Your task to perform on an android device: turn off notifications settings in the gmail app Image 0: 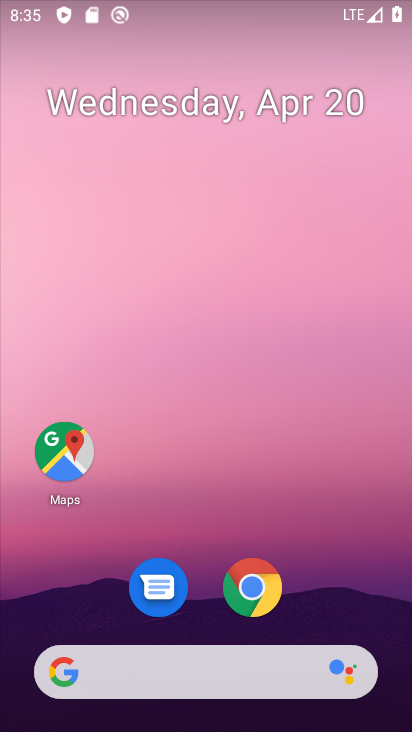
Step 0: drag from (368, 565) to (355, 216)
Your task to perform on an android device: turn off notifications settings in the gmail app Image 1: 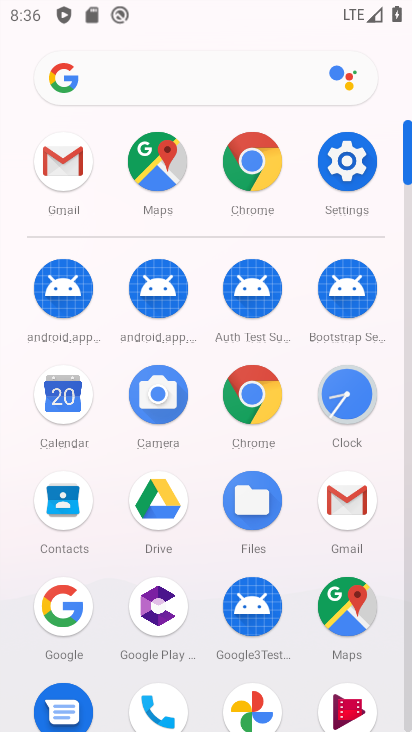
Step 1: click (353, 507)
Your task to perform on an android device: turn off notifications settings in the gmail app Image 2: 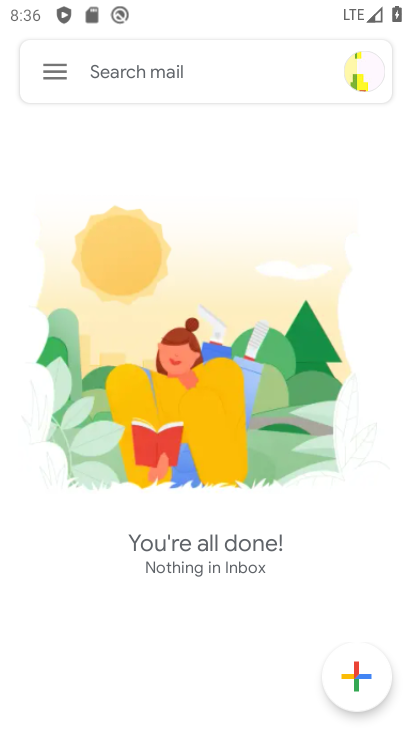
Step 2: click (60, 78)
Your task to perform on an android device: turn off notifications settings in the gmail app Image 3: 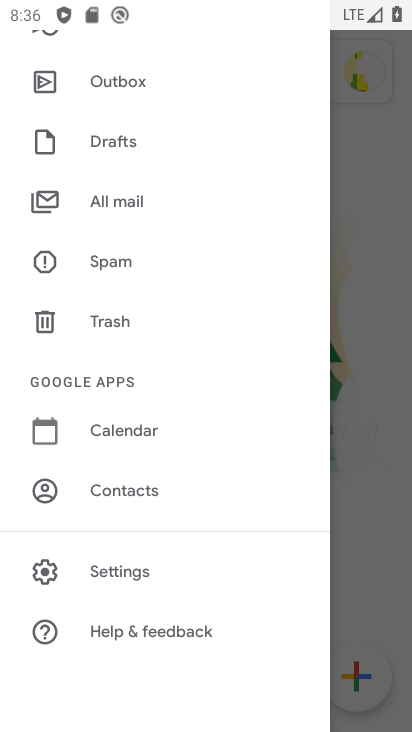
Step 3: drag from (270, 295) to (270, 393)
Your task to perform on an android device: turn off notifications settings in the gmail app Image 4: 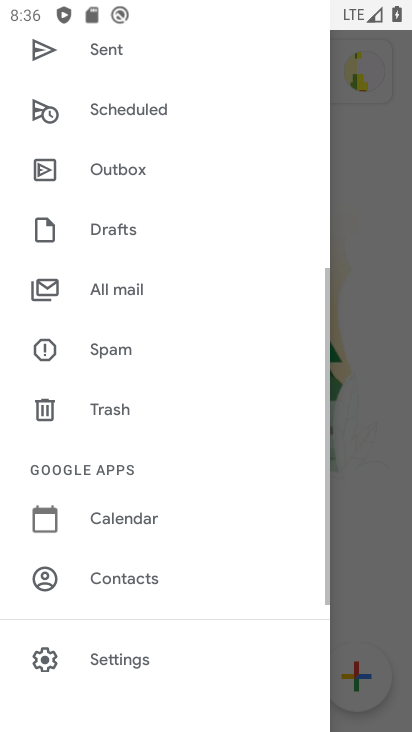
Step 4: drag from (280, 240) to (293, 378)
Your task to perform on an android device: turn off notifications settings in the gmail app Image 5: 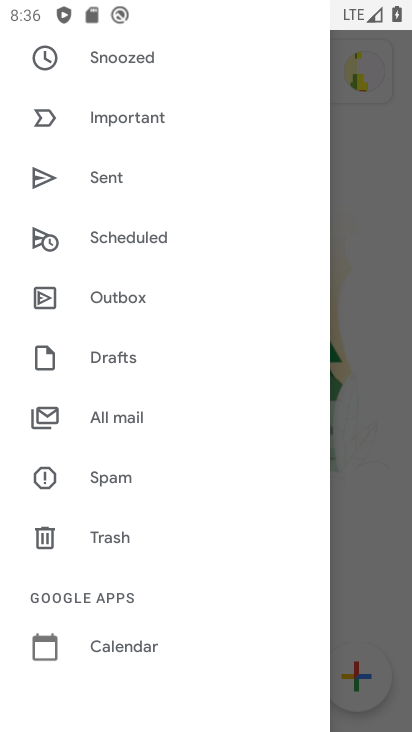
Step 5: drag from (289, 207) to (272, 355)
Your task to perform on an android device: turn off notifications settings in the gmail app Image 6: 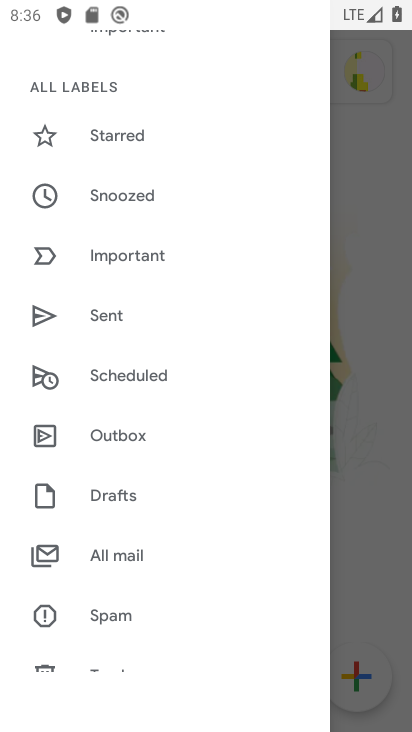
Step 6: drag from (277, 190) to (261, 348)
Your task to perform on an android device: turn off notifications settings in the gmail app Image 7: 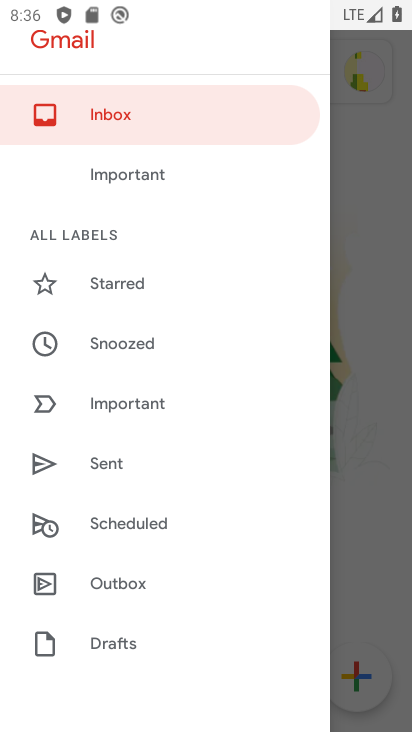
Step 7: drag from (246, 384) to (257, 282)
Your task to perform on an android device: turn off notifications settings in the gmail app Image 8: 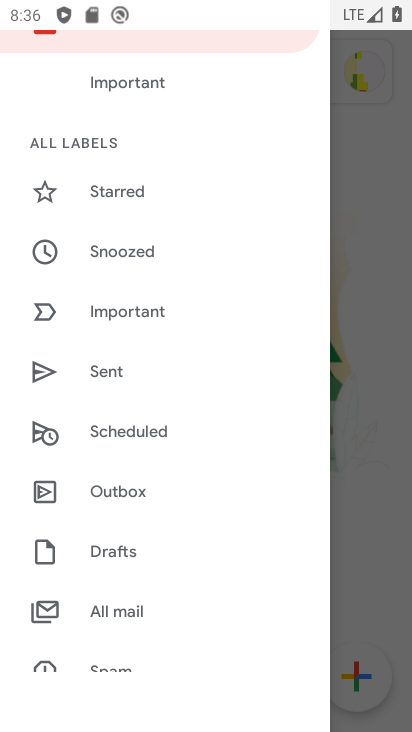
Step 8: drag from (240, 431) to (265, 273)
Your task to perform on an android device: turn off notifications settings in the gmail app Image 9: 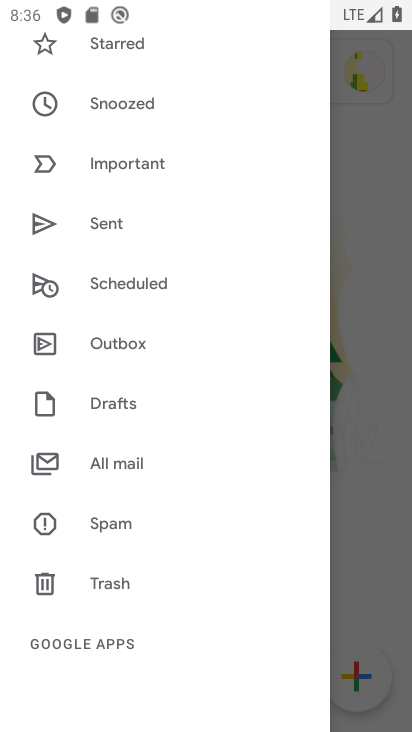
Step 9: drag from (272, 443) to (269, 292)
Your task to perform on an android device: turn off notifications settings in the gmail app Image 10: 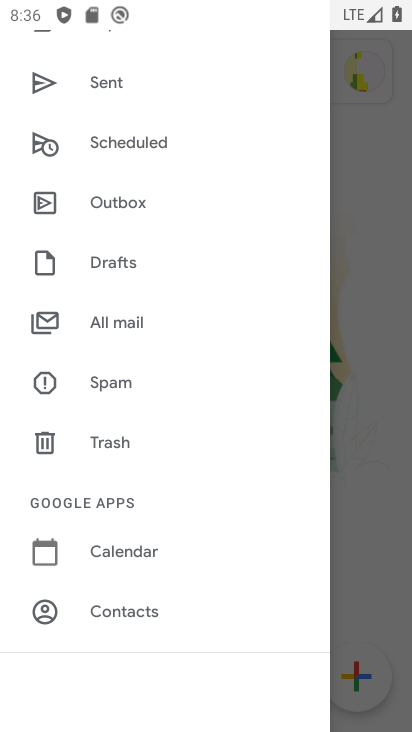
Step 10: drag from (255, 455) to (264, 317)
Your task to perform on an android device: turn off notifications settings in the gmail app Image 11: 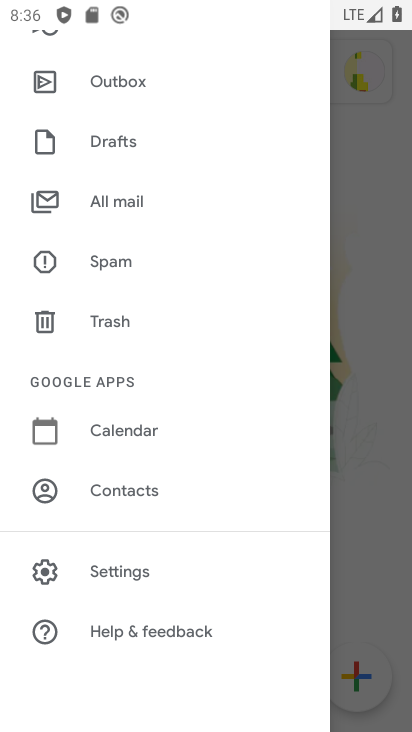
Step 11: click (179, 574)
Your task to perform on an android device: turn off notifications settings in the gmail app Image 12: 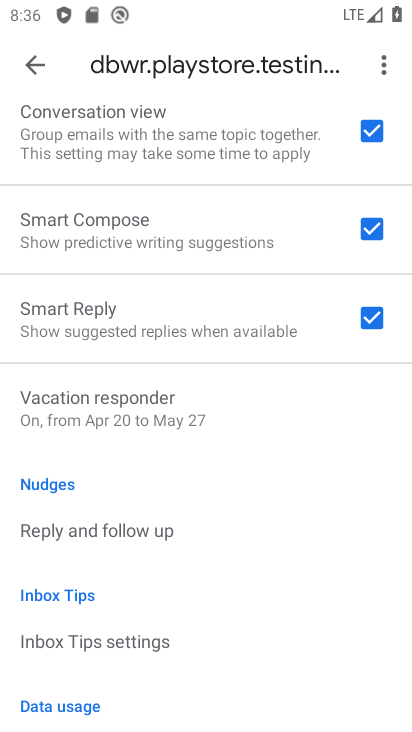
Step 12: drag from (288, 401) to (279, 463)
Your task to perform on an android device: turn off notifications settings in the gmail app Image 13: 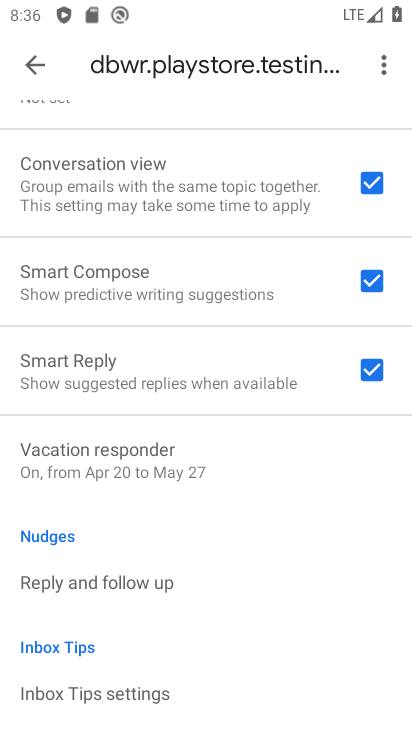
Step 13: drag from (305, 332) to (305, 433)
Your task to perform on an android device: turn off notifications settings in the gmail app Image 14: 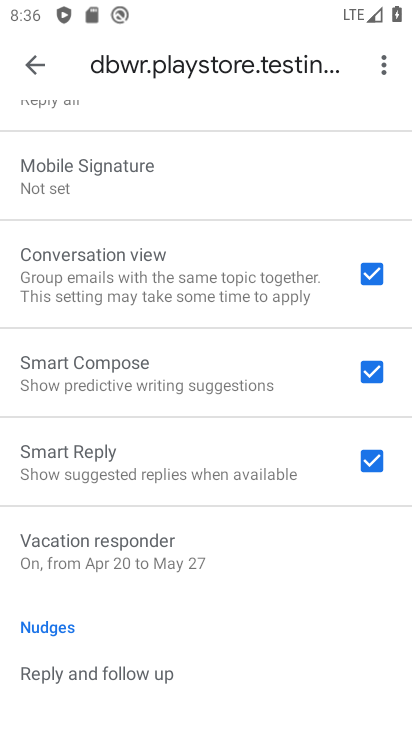
Step 14: drag from (311, 351) to (317, 459)
Your task to perform on an android device: turn off notifications settings in the gmail app Image 15: 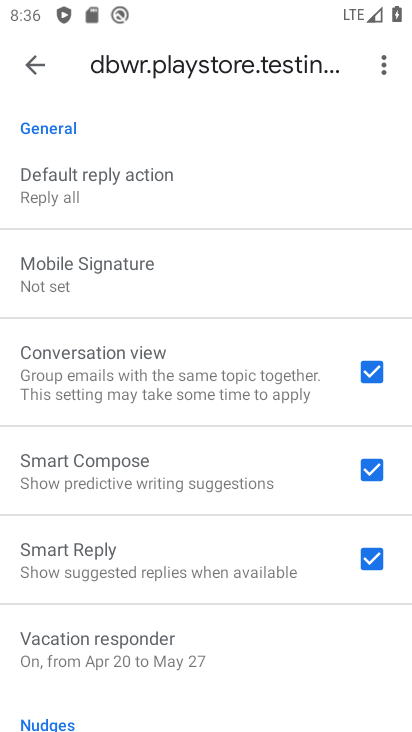
Step 15: drag from (318, 274) to (297, 416)
Your task to perform on an android device: turn off notifications settings in the gmail app Image 16: 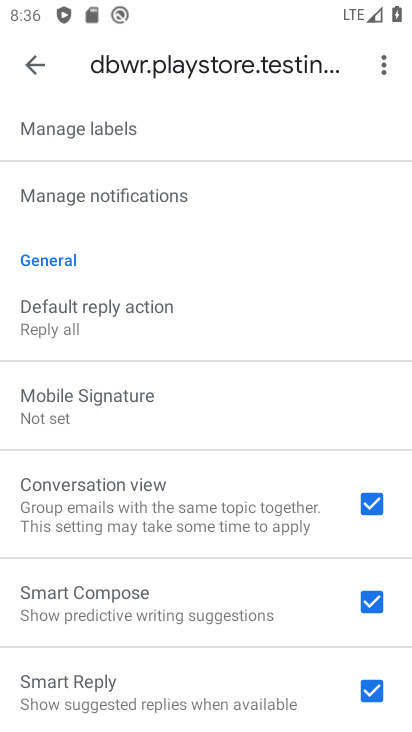
Step 16: drag from (343, 276) to (299, 405)
Your task to perform on an android device: turn off notifications settings in the gmail app Image 17: 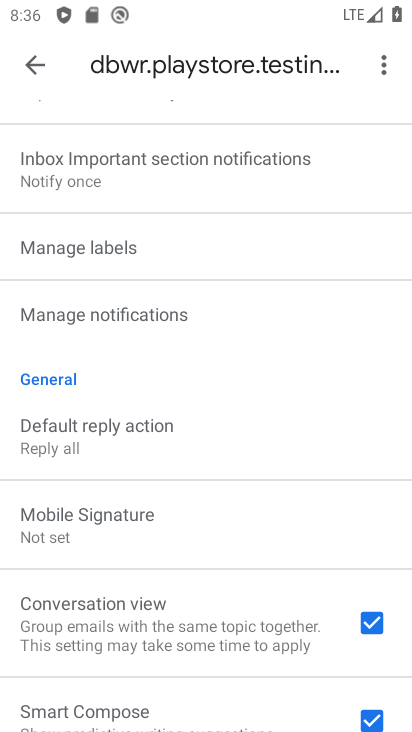
Step 17: drag from (313, 342) to (294, 452)
Your task to perform on an android device: turn off notifications settings in the gmail app Image 18: 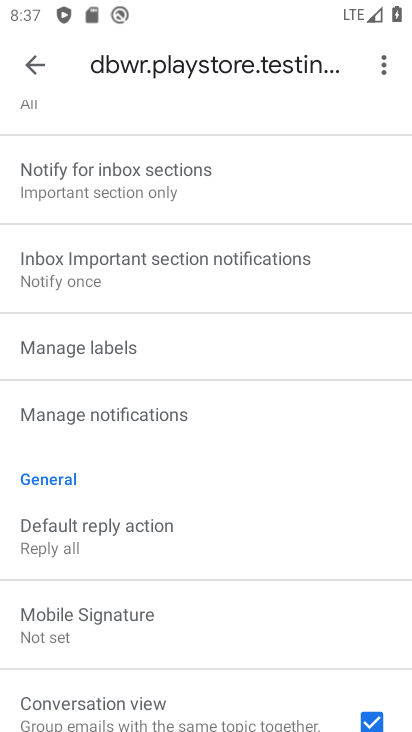
Step 18: click (176, 420)
Your task to perform on an android device: turn off notifications settings in the gmail app Image 19: 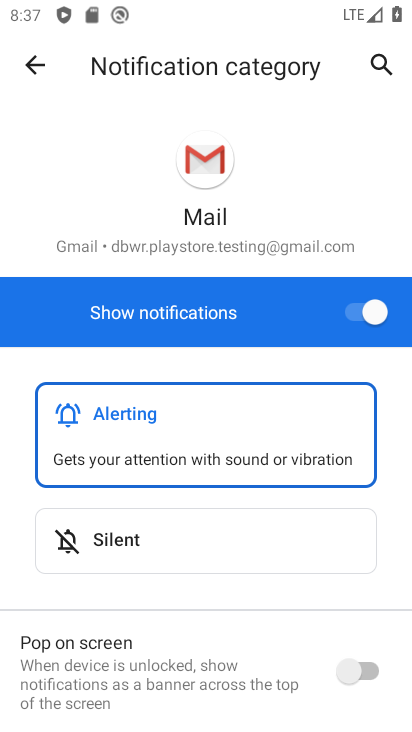
Step 19: click (372, 317)
Your task to perform on an android device: turn off notifications settings in the gmail app Image 20: 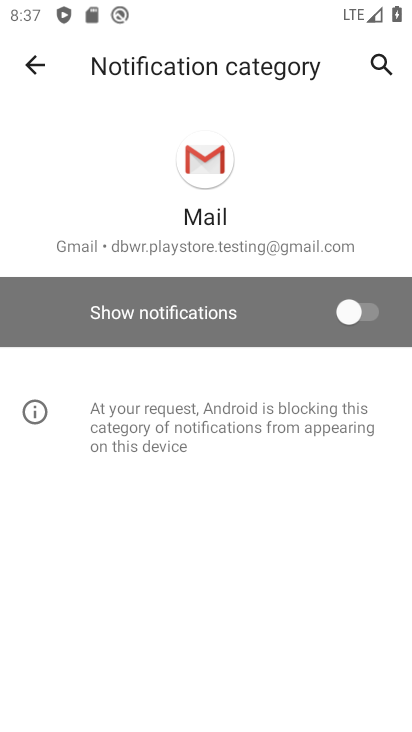
Step 20: task complete